Your task to perform on an android device: Open sound settings Image 0: 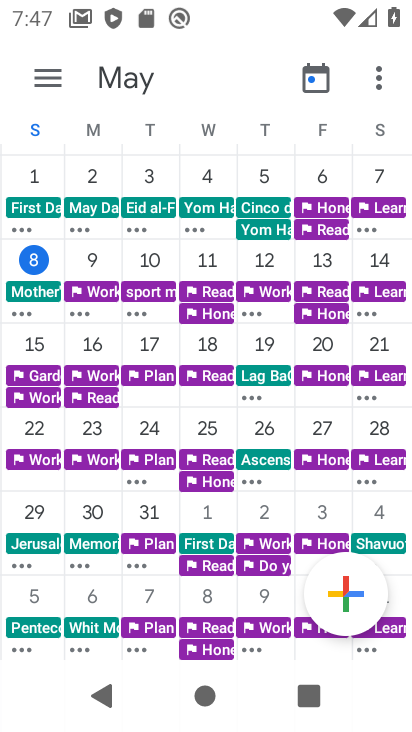
Step 0: press home button
Your task to perform on an android device: Open sound settings Image 1: 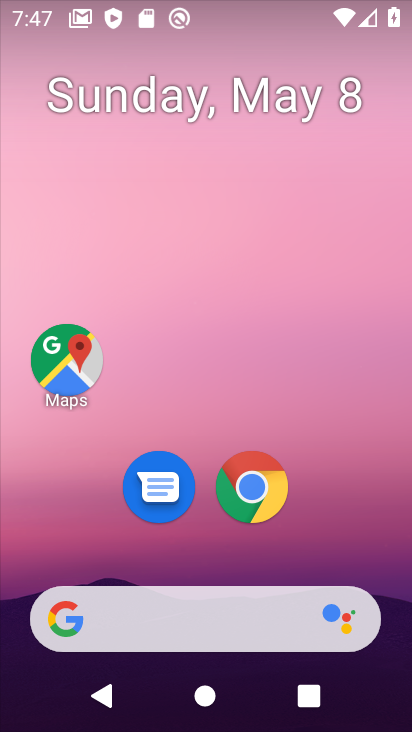
Step 1: drag from (356, 513) to (349, 107)
Your task to perform on an android device: Open sound settings Image 2: 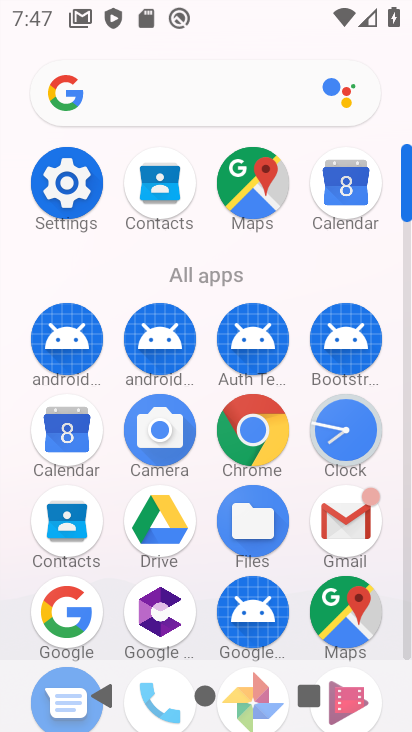
Step 2: click (22, 199)
Your task to perform on an android device: Open sound settings Image 3: 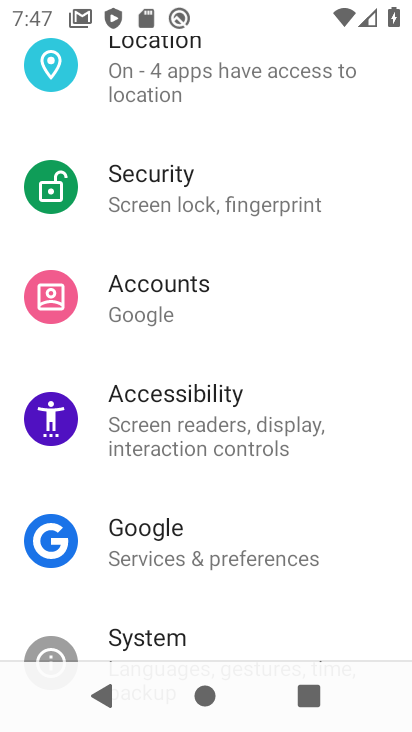
Step 3: drag from (246, 272) to (239, 696)
Your task to perform on an android device: Open sound settings Image 4: 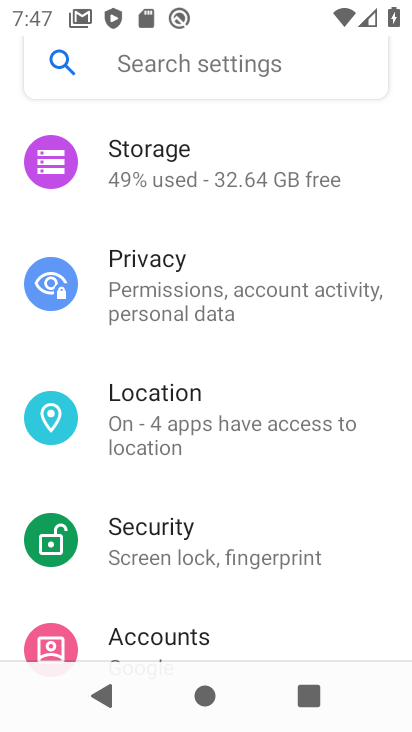
Step 4: drag from (216, 292) to (216, 572)
Your task to perform on an android device: Open sound settings Image 5: 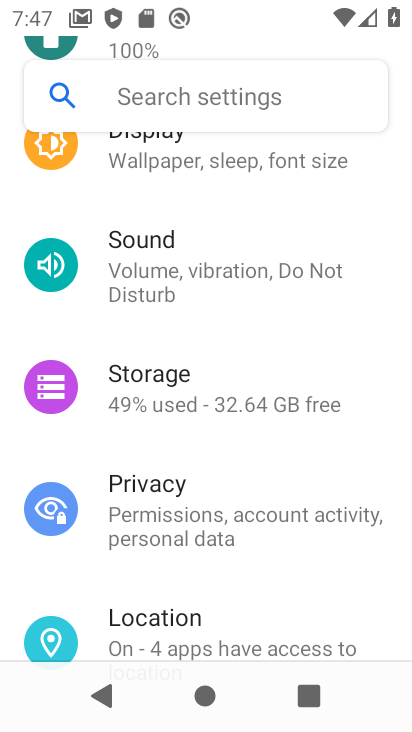
Step 5: click (217, 260)
Your task to perform on an android device: Open sound settings Image 6: 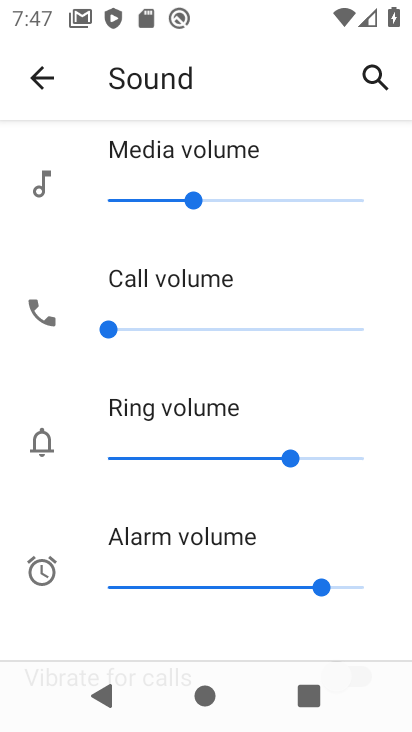
Step 6: task complete